Your task to perform on an android device: Clear the shopping cart on ebay.com. Add usb-c to the cart on ebay.com Image 0: 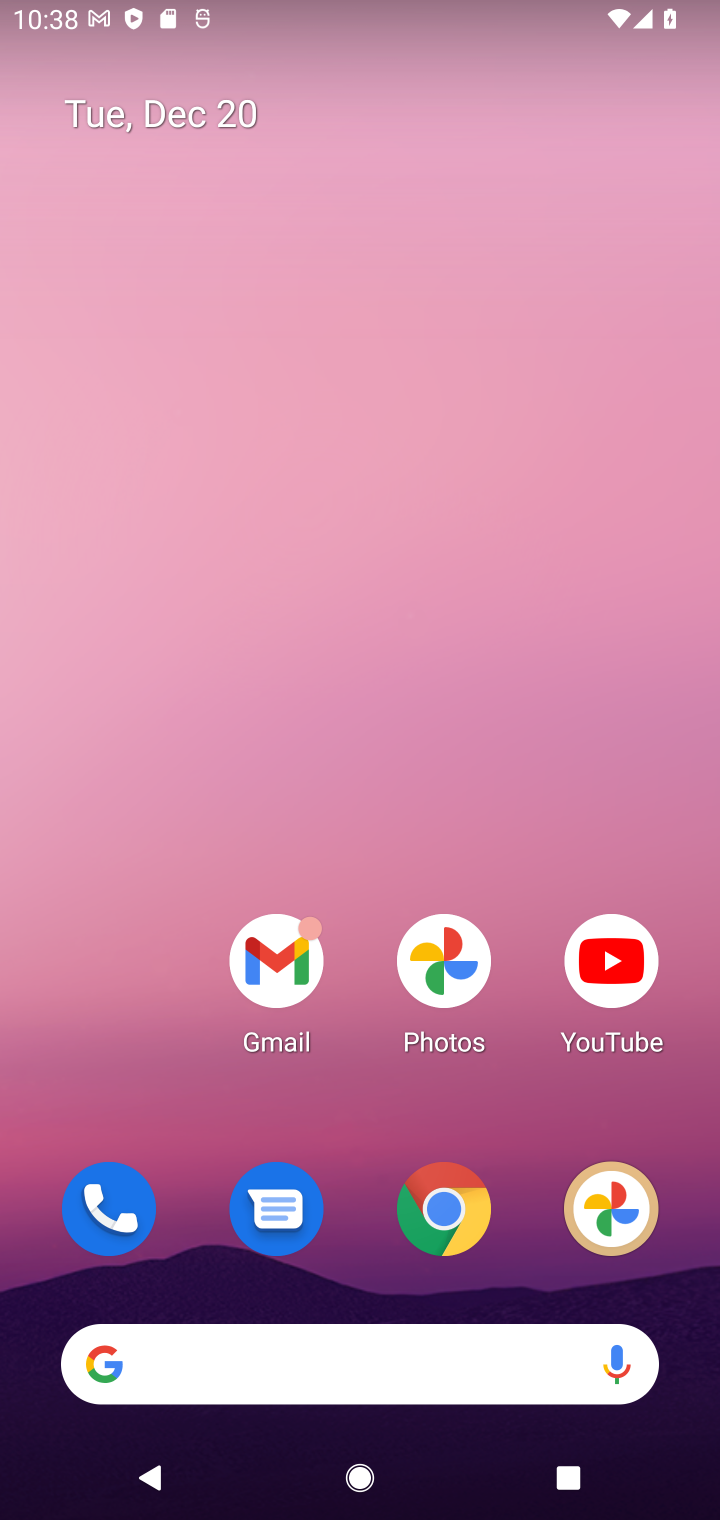
Step 0: click (443, 1208)
Your task to perform on an android device: Clear the shopping cart on ebay.com. Add usb-c to the cart on ebay.com Image 1: 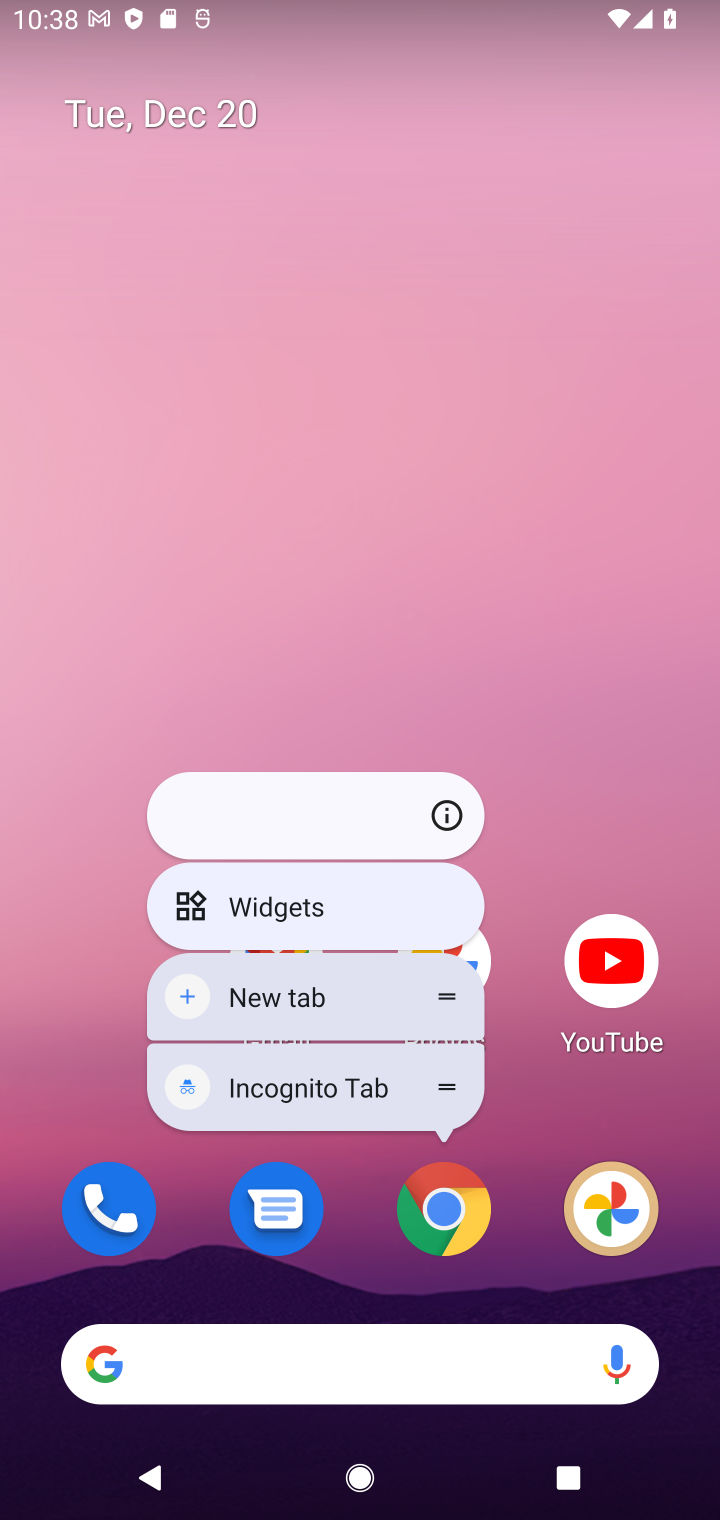
Step 1: click (445, 1208)
Your task to perform on an android device: Clear the shopping cart on ebay.com. Add usb-c to the cart on ebay.com Image 2: 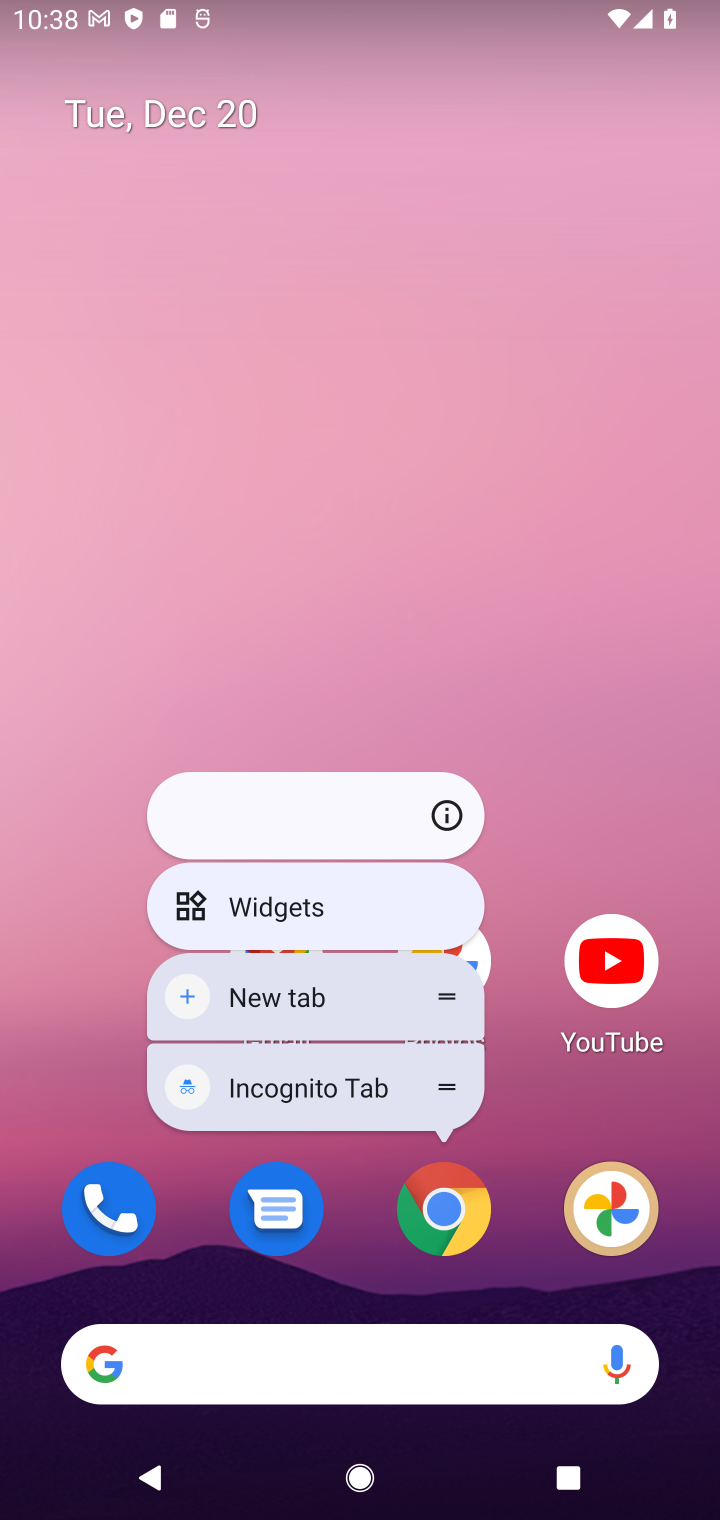
Step 2: click (445, 1208)
Your task to perform on an android device: Clear the shopping cart on ebay.com. Add usb-c to the cart on ebay.com Image 3: 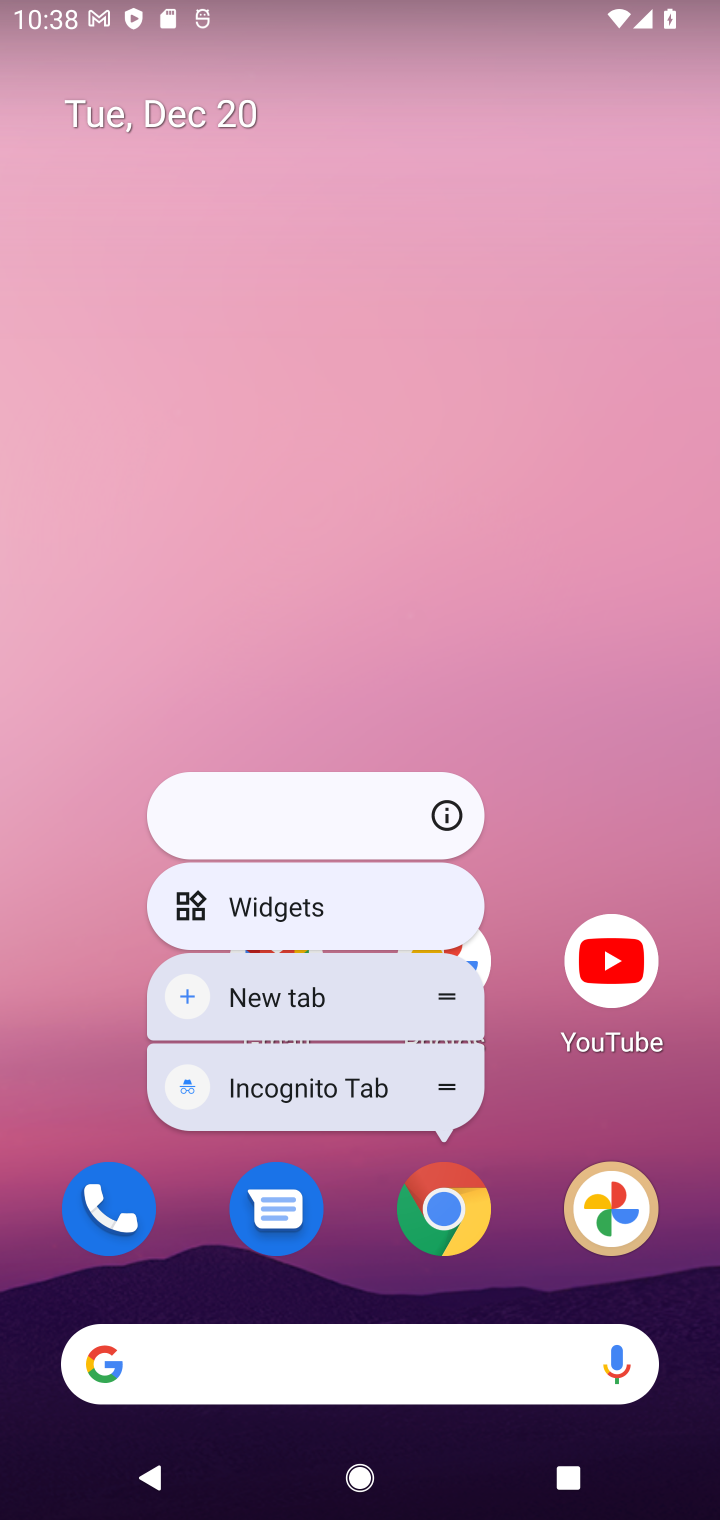
Step 3: click (441, 1218)
Your task to perform on an android device: Clear the shopping cart on ebay.com. Add usb-c to the cart on ebay.com Image 4: 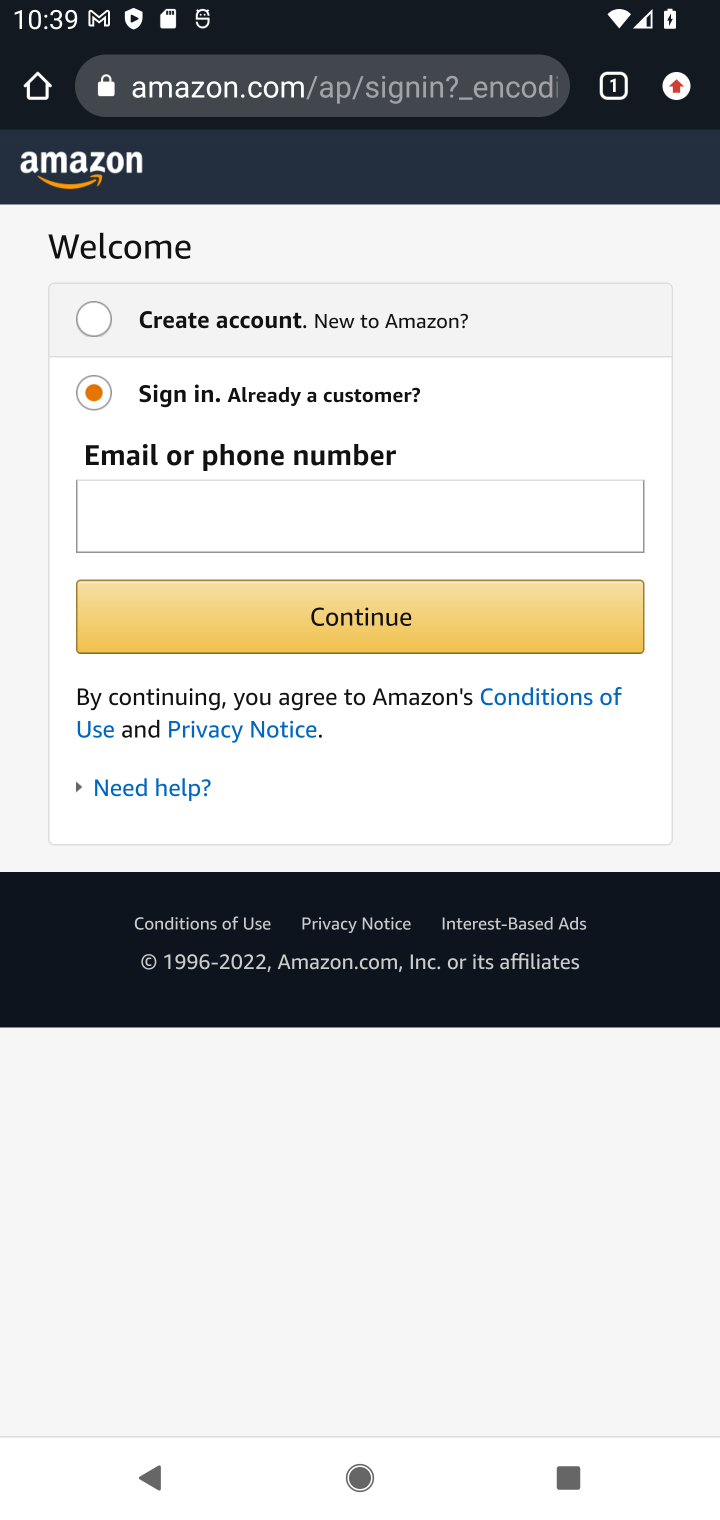
Step 4: click (222, 96)
Your task to perform on an android device: Clear the shopping cart on ebay.com. Add usb-c to the cart on ebay.com Image 5: 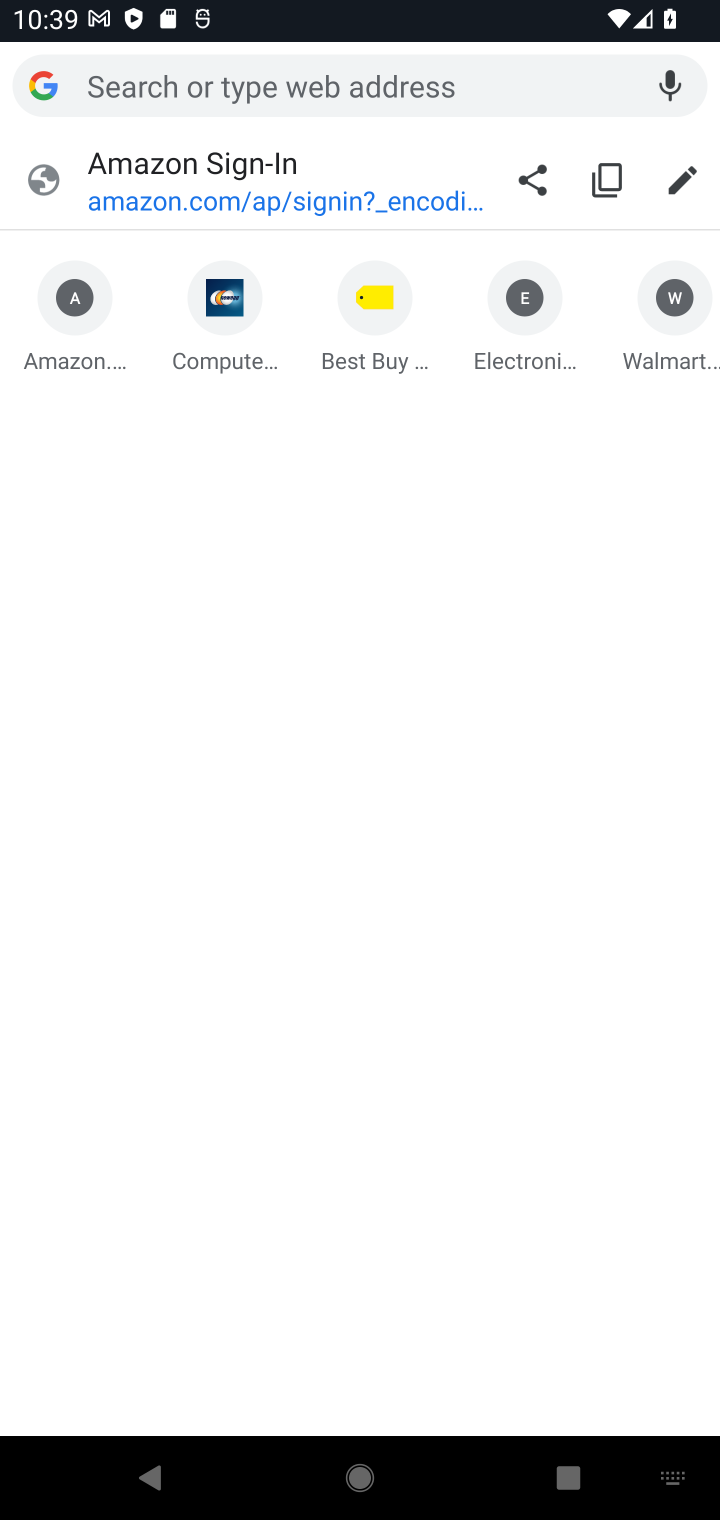
Step 5: type "ebay.com"
Your task to perform on an android device: Clear the shopping cart on ebay.com. Add usb-c to the cart on ebay.com Image 6: 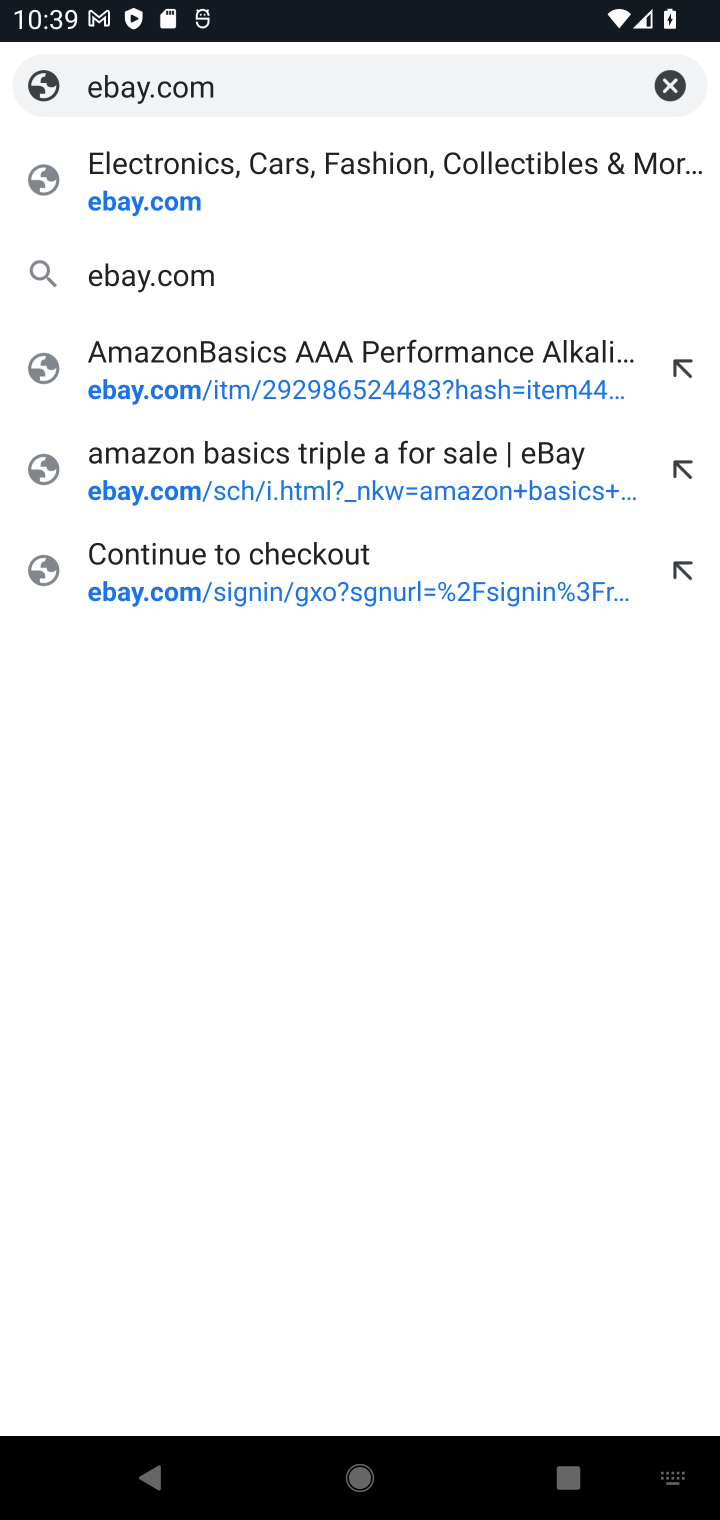
Step 6: click (140, 197)
Your task to perform on an android device: Clear the shopping cart on ebay.com. Add usb-c to the cart on ebay.com Image 7: 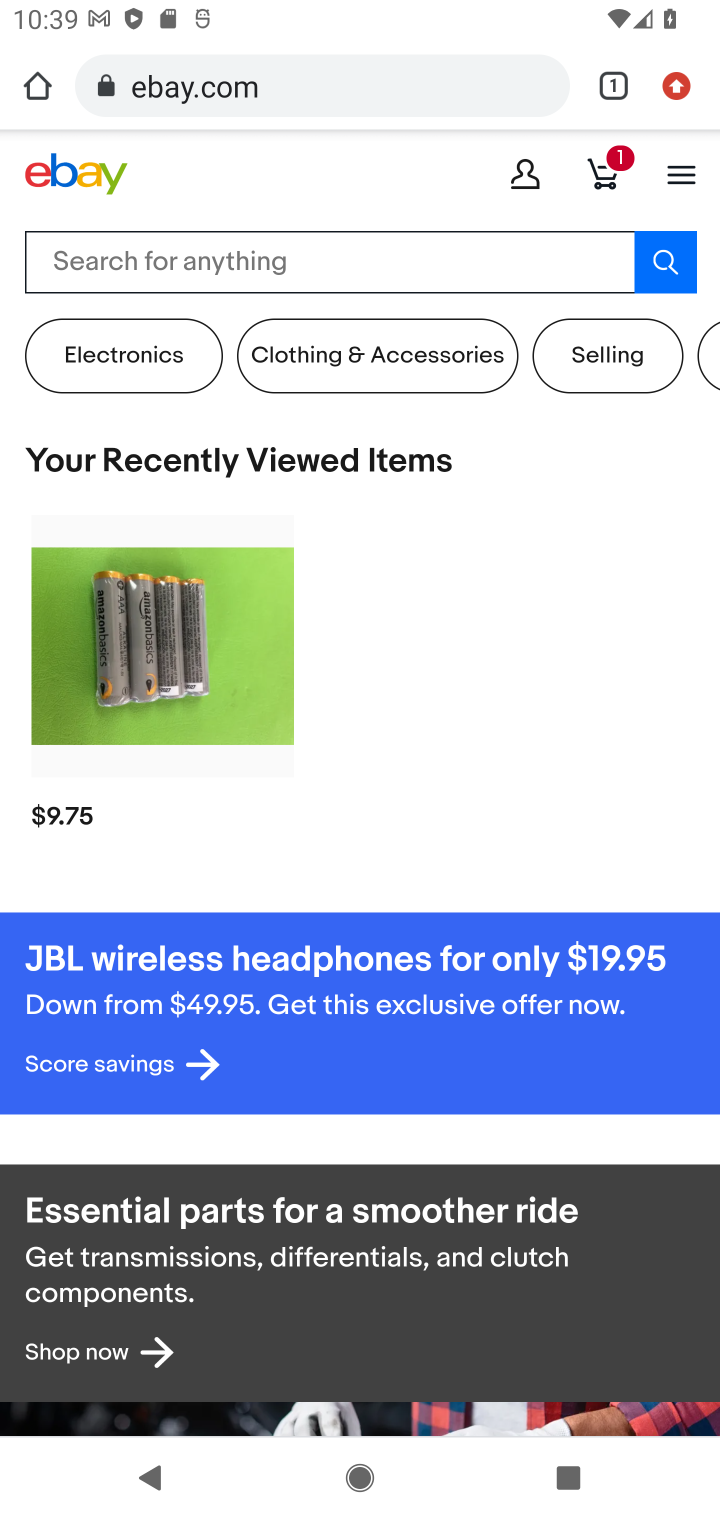
Step 7: click (606, 180)
Your task to perform on an android device: Clear the shopping cart on ebay.com. Add usb-c to the cart on ebay.com Image 8: 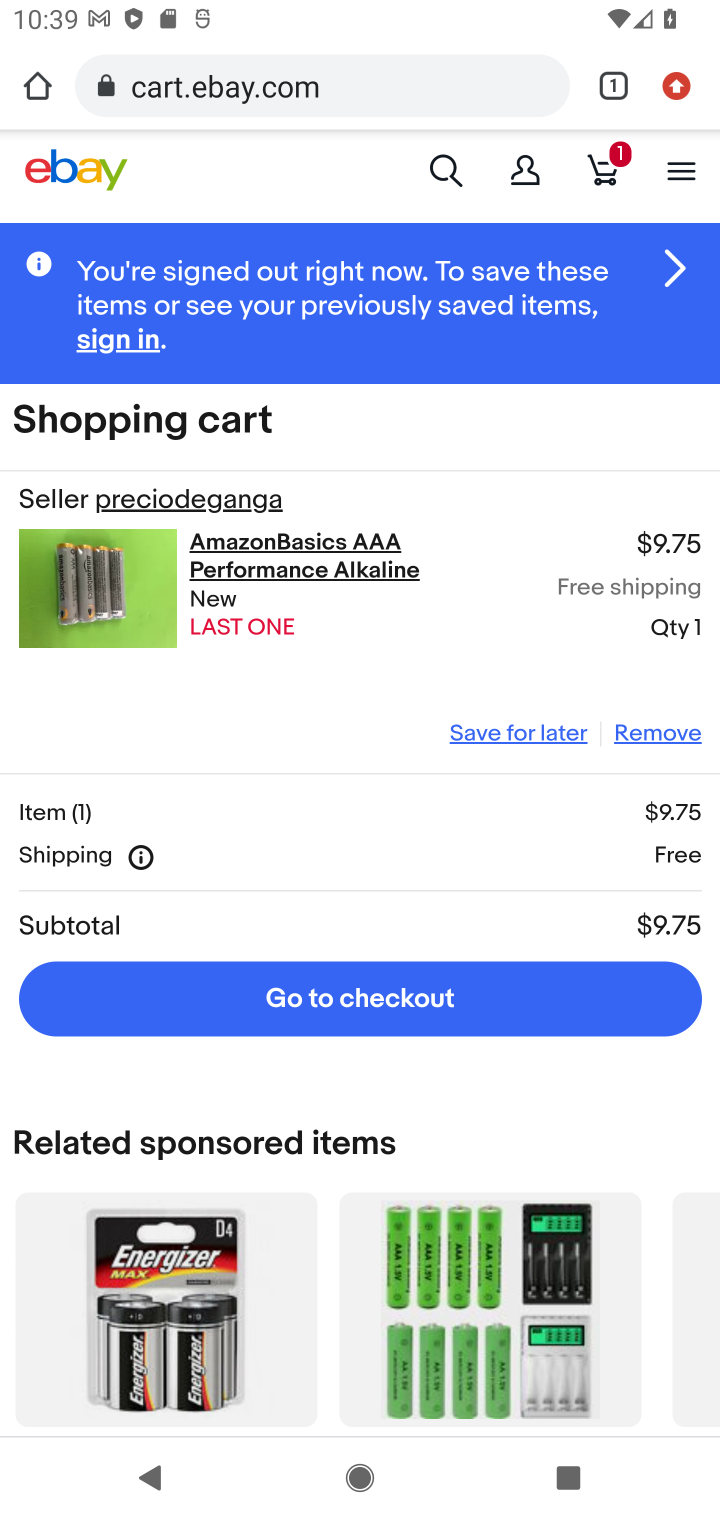
Step 8: click (667, 739)
Your task to perform on an android device: Clear the shopping cart on ebay.com. Add usb-c to the cart on ebay.com Image 9: 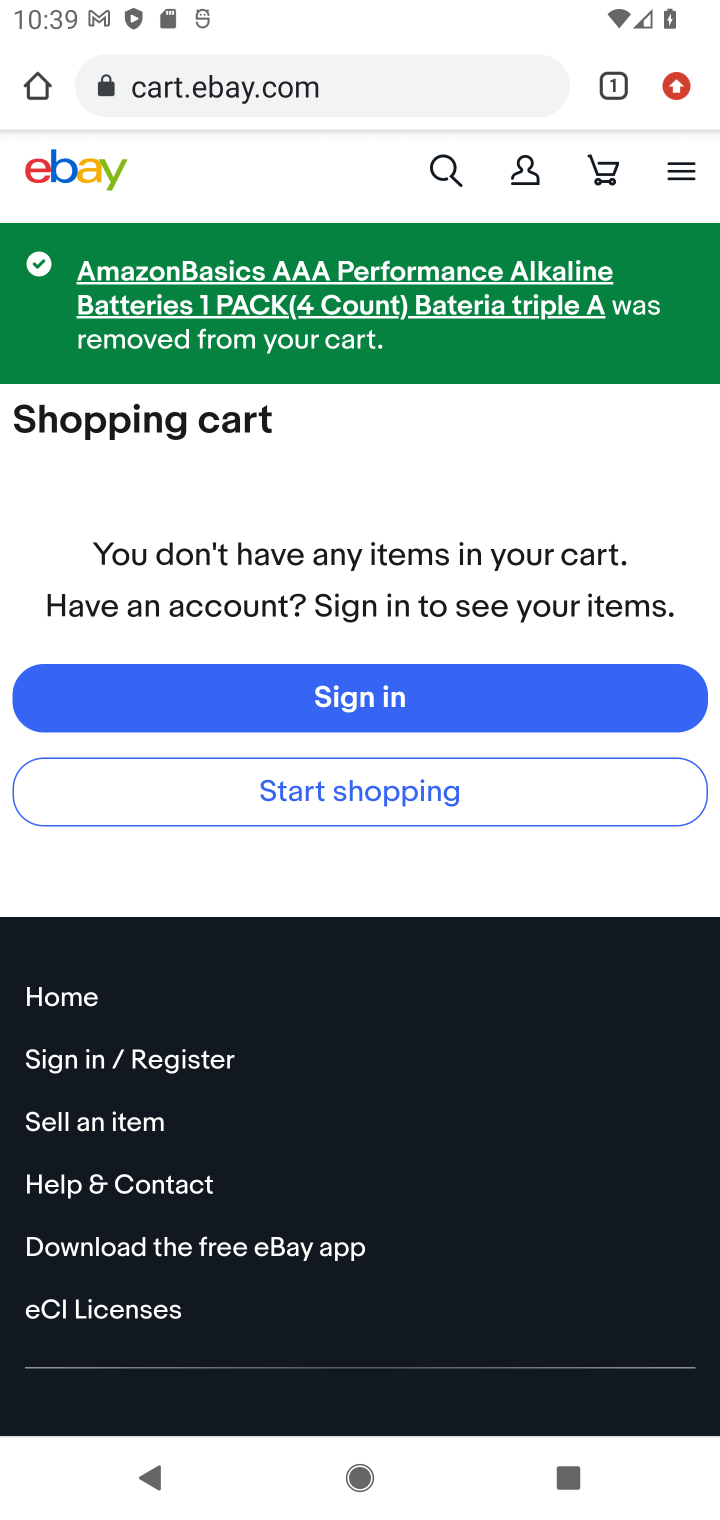
Step 9: click (441, 171)
Your task to perform on an android device: Clear the shopping cart on ebay.com. Add usb-c to the cart on ebay.com Image 10: 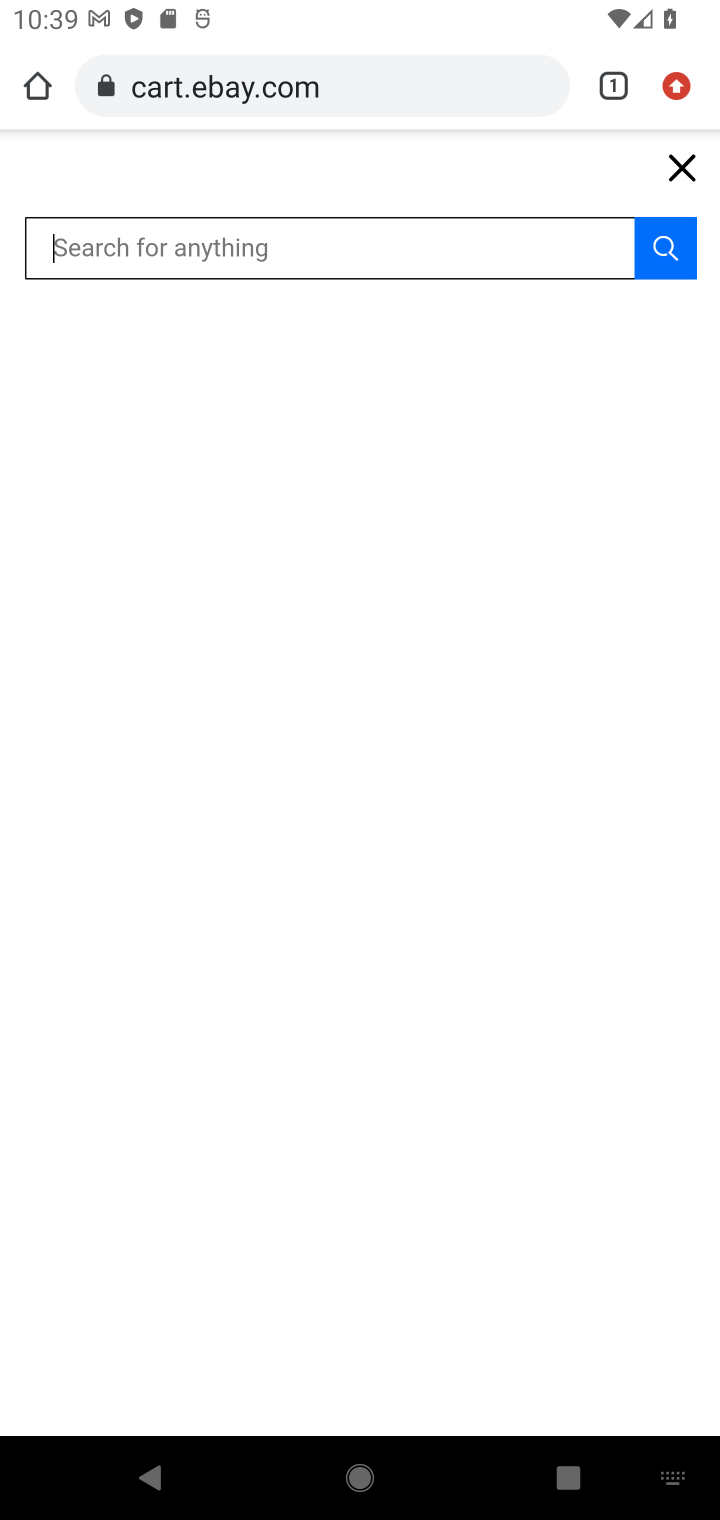
Step 10: type "usb-c"
Your task to perform on an android device: Clear the shopping cart on ebay.com. Add usb-c to the cart on ebay.com Image 11: 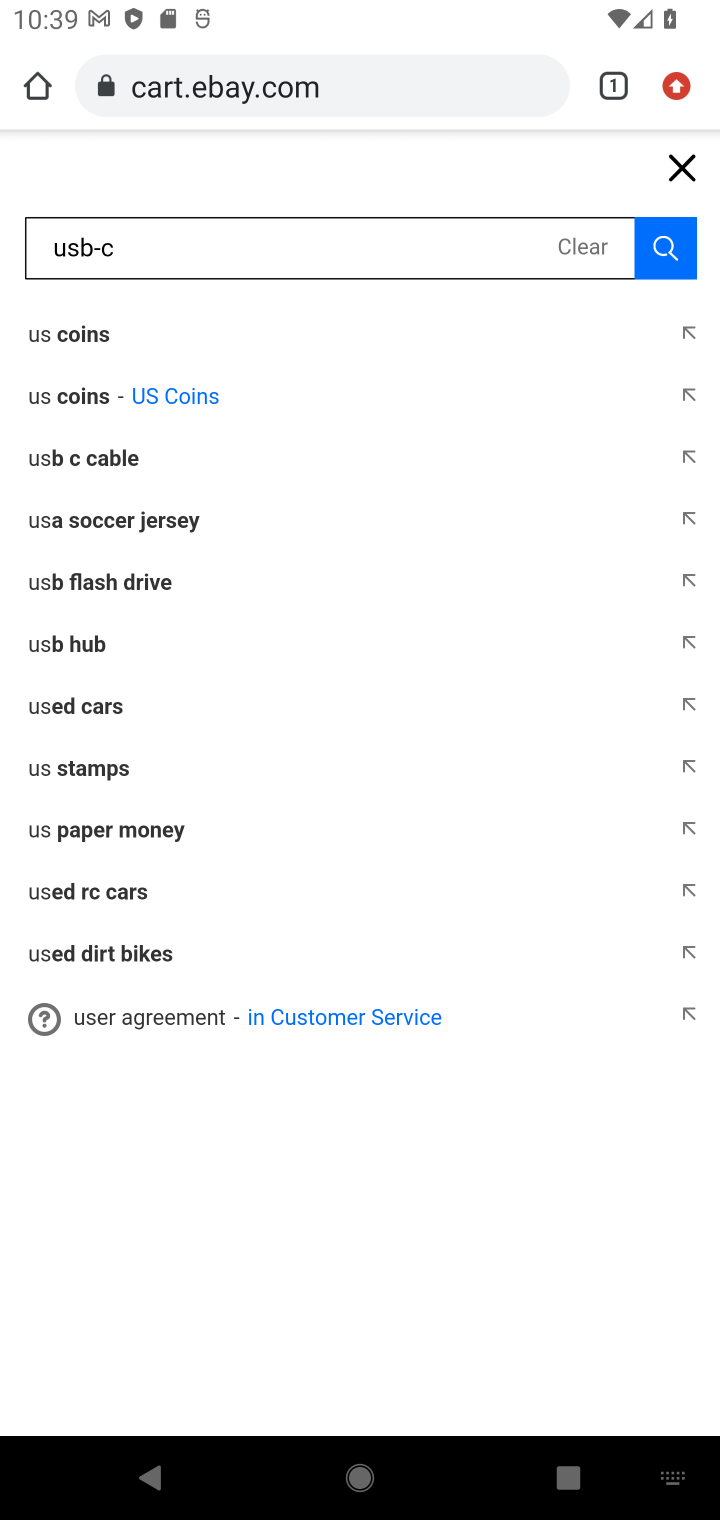
Step 11: click (667, 242)
Your task to perform on an android device: Clear the shopping cart on ebay.com. Add usb-c to the cart on ebay.com Image 12: 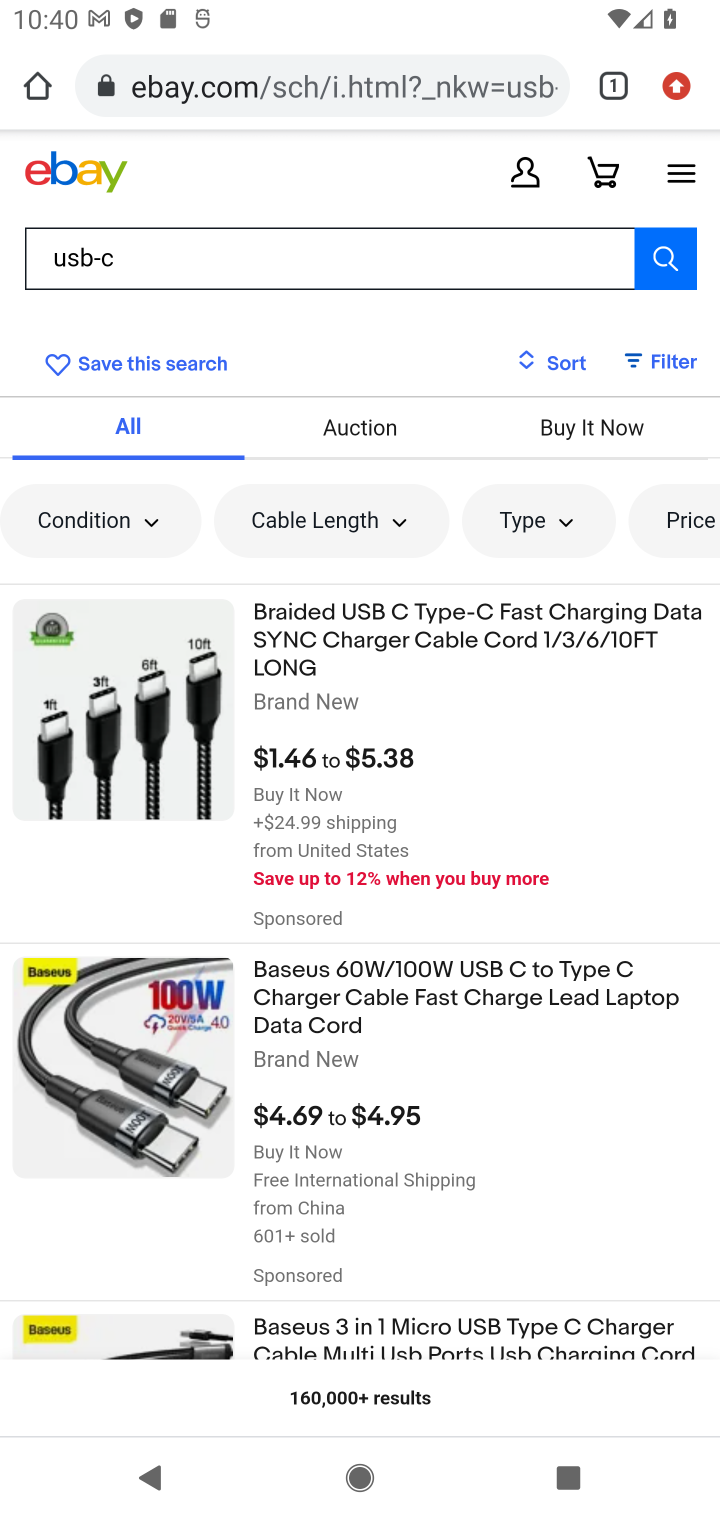
Step 12: click (292, 632)
Your task to perform on an android device: Clear the shopping cart on ebay.com. Add usb-c to the cart on ebay.com Image 13: 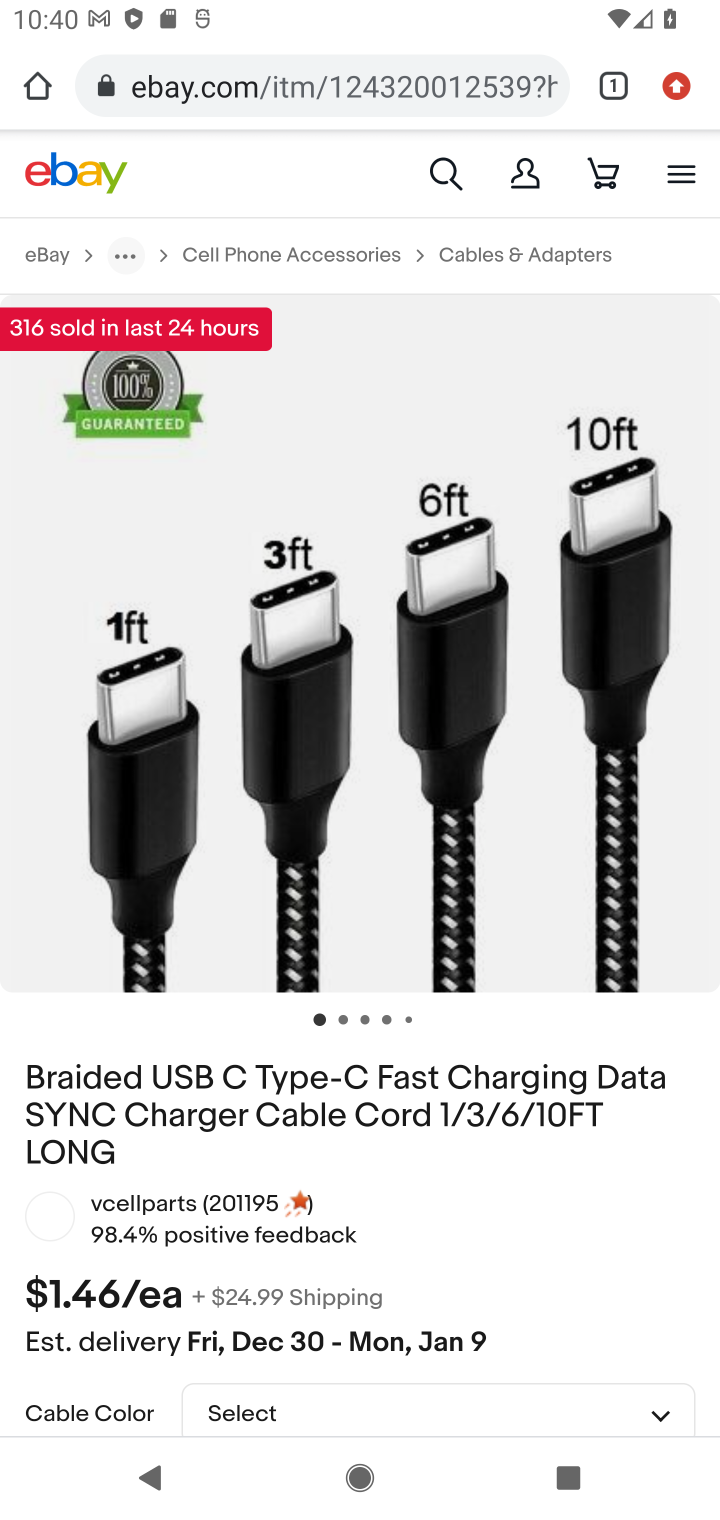
Step 13: drag from (350, 1160) to (376, 681)
Your task to perform on an android device: Clear the shopping cart on ebay.com. Add usb-c to the cart on ebay.com Image 14: 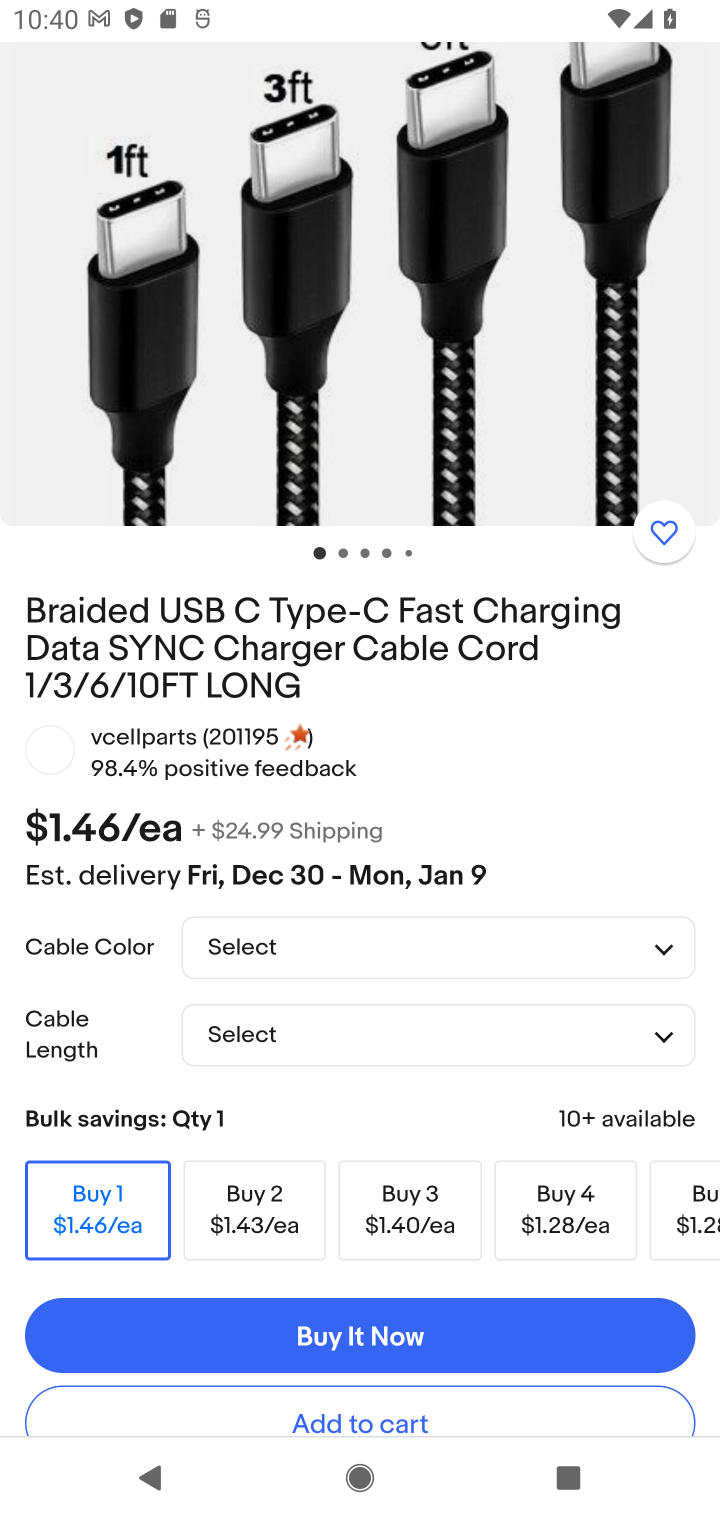
Step 14: drag from (340, 1256) to (351, 823)
Your task to perform on an android device: Clear the shopping cart on ebay.com. Add usb-c to the cart on ebay.com Image 15: 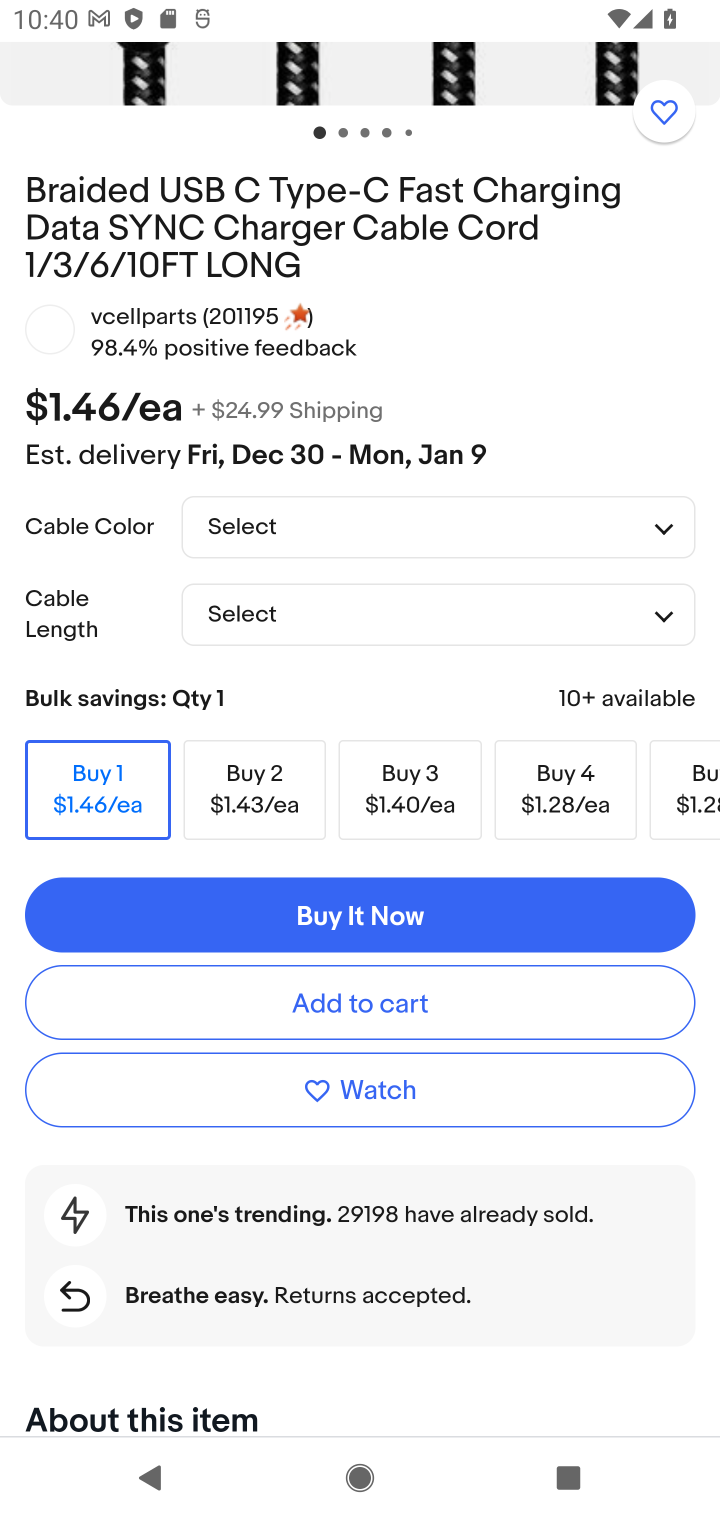
Step 15: click (339, 1006)
Your task to perform on an android device: Clear the shopping cart on ebay.com. Add usb-c to the cart on ebay.com Image 16: 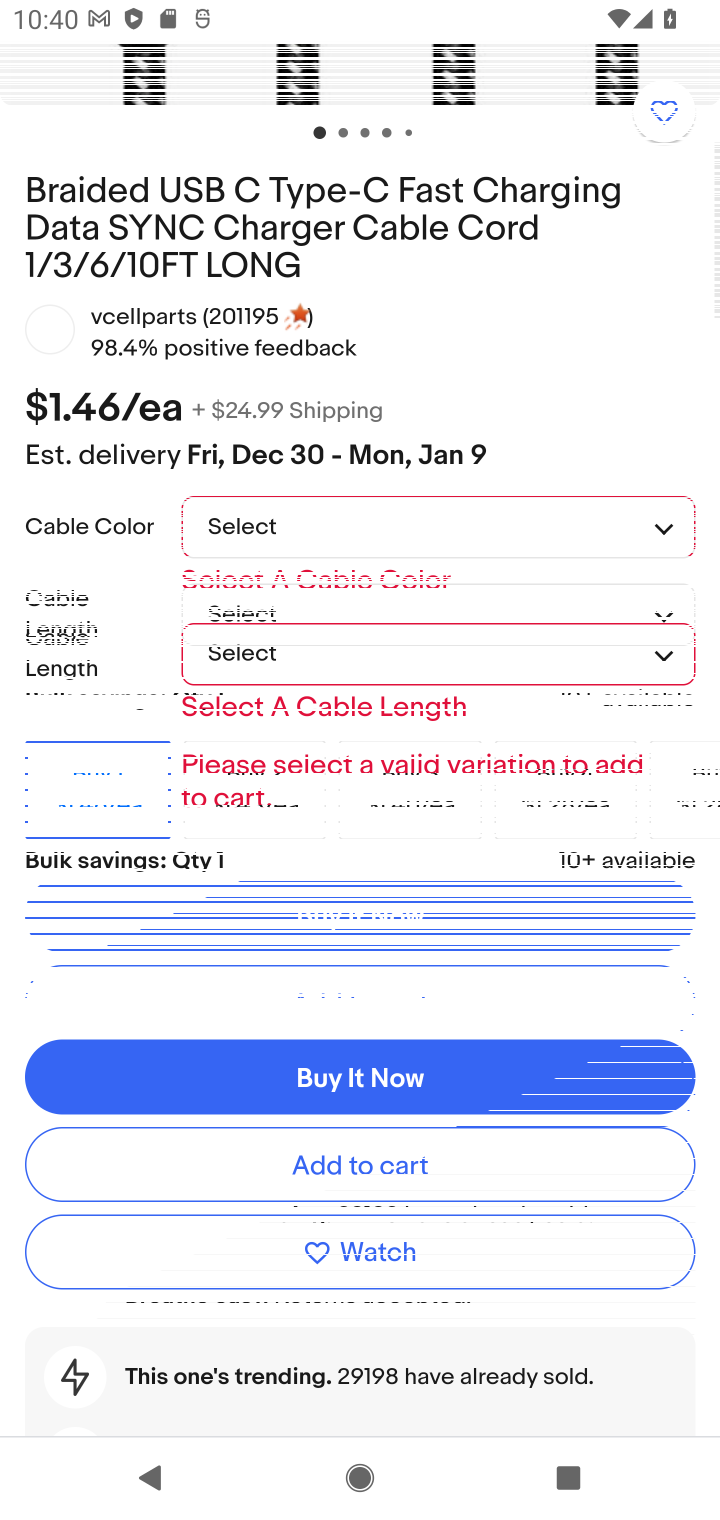
Step 16: click (669, 525)
Your task to perform on an android device: Clear the shopping cart on ebay.com. Add usb-c to the cart on ebay.com Image 17: 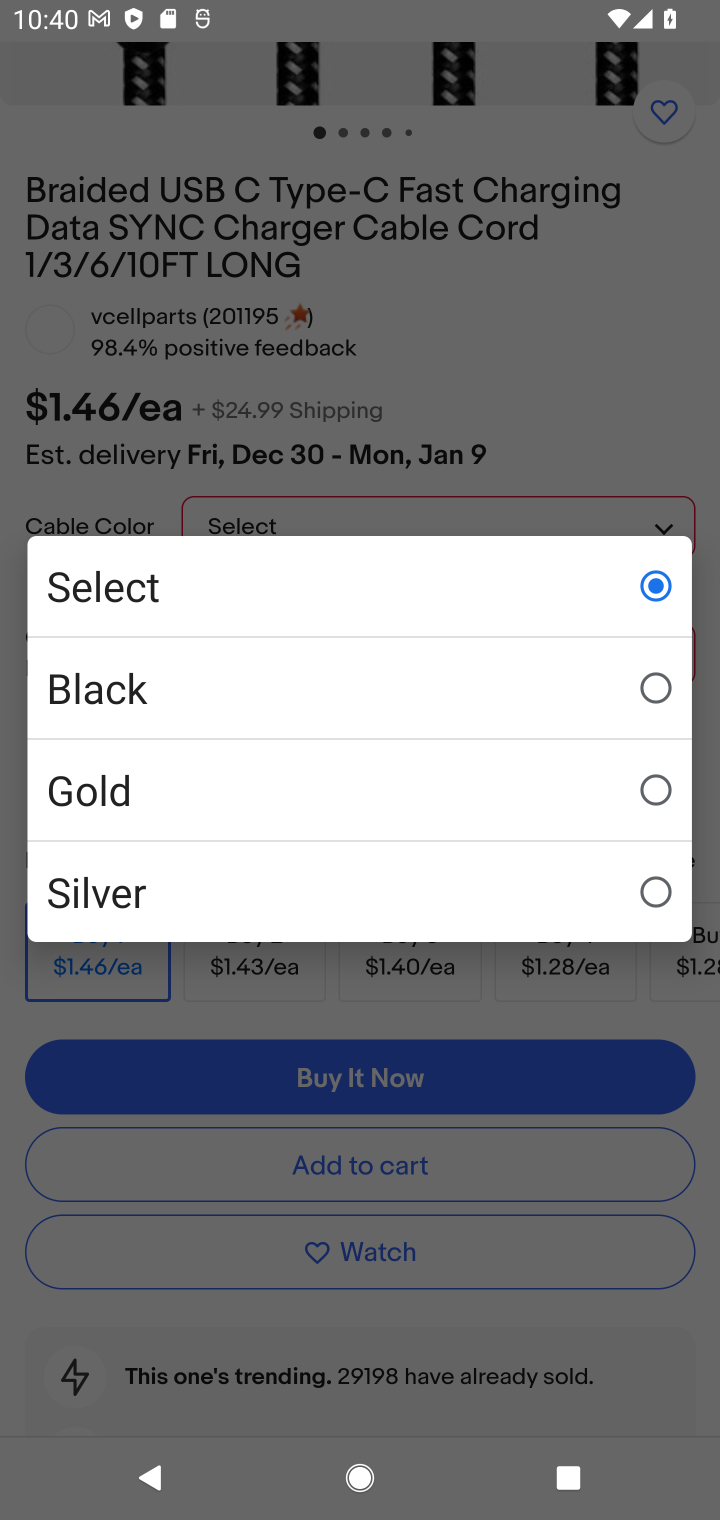
Step 17: click (104, 693)
Your task to perform on an android device: Clear the shopping cart on ebay.com. Add usb-c to the cart on ebay.com Image 18: 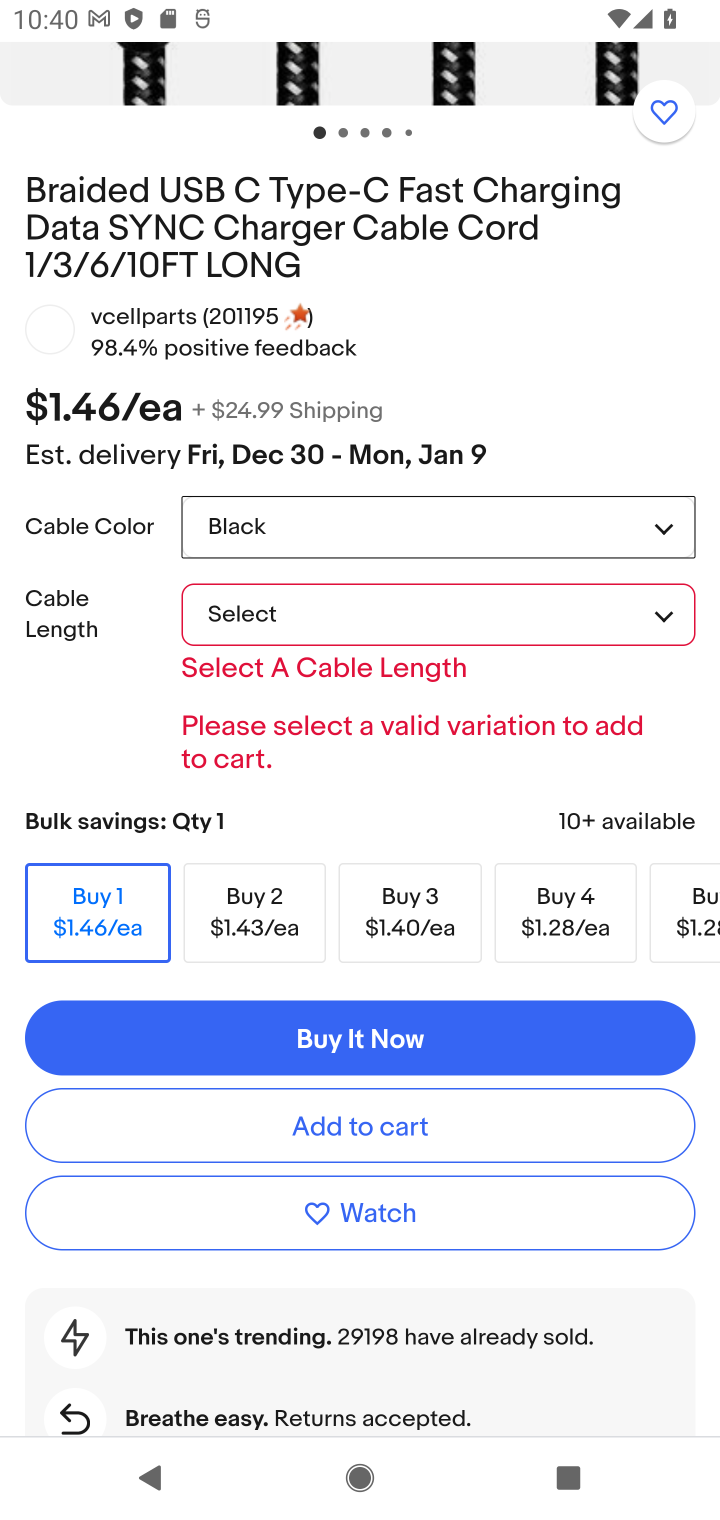
Step 18: click (665, 616)
Your task to perform on an android device: Clear the shopping cart on ebay.com. Add usb-c to the cart on ebay.com Image 19: 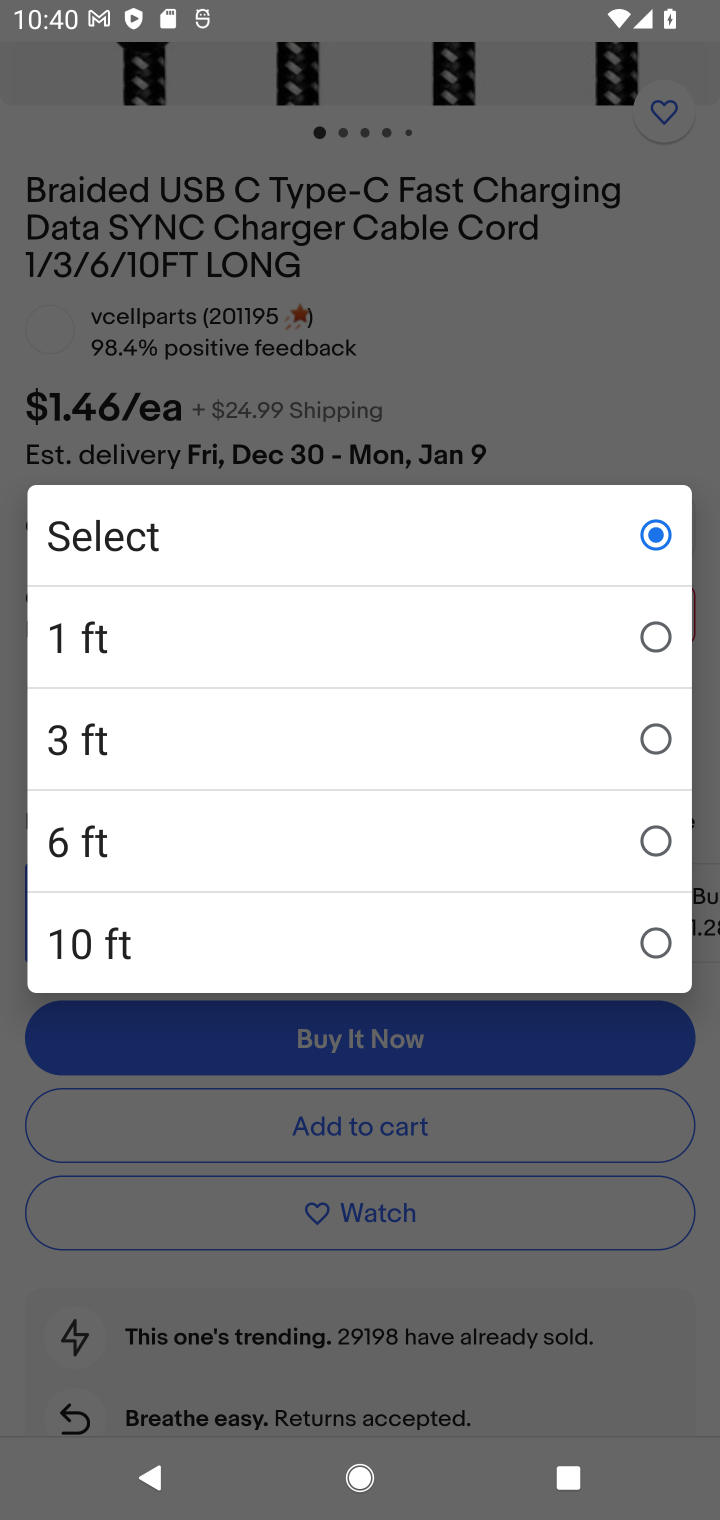
Step 19: click (130, 740)
Your task to perform on an android device: Clear the shopping cart on ebay.com. Add usb-c to the cart on ebay.com Image 20: 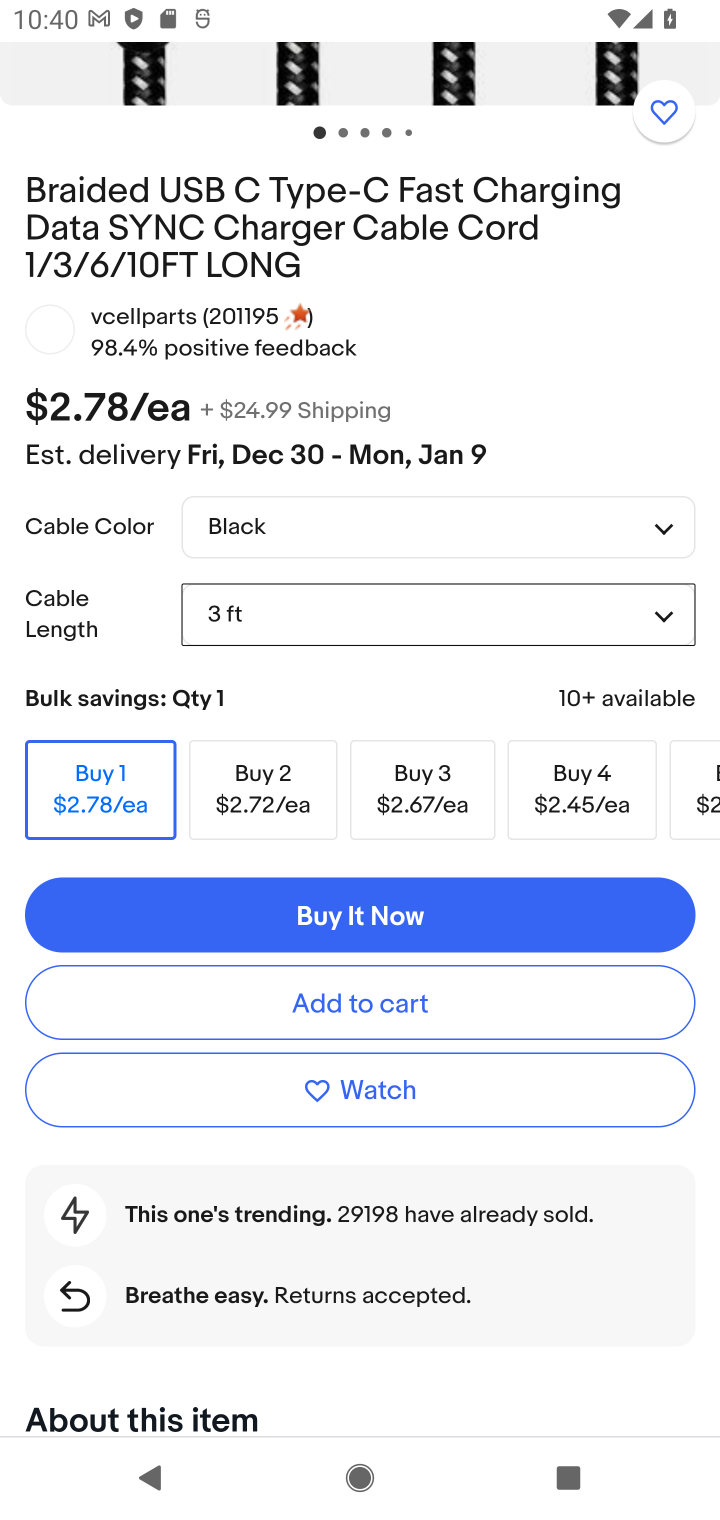
Step 20: click (325, 1005)
Your task to perform on an android device: Clear the shopping cart on ebay.com. Add usb-c to the cart on ebay.com Image 21: 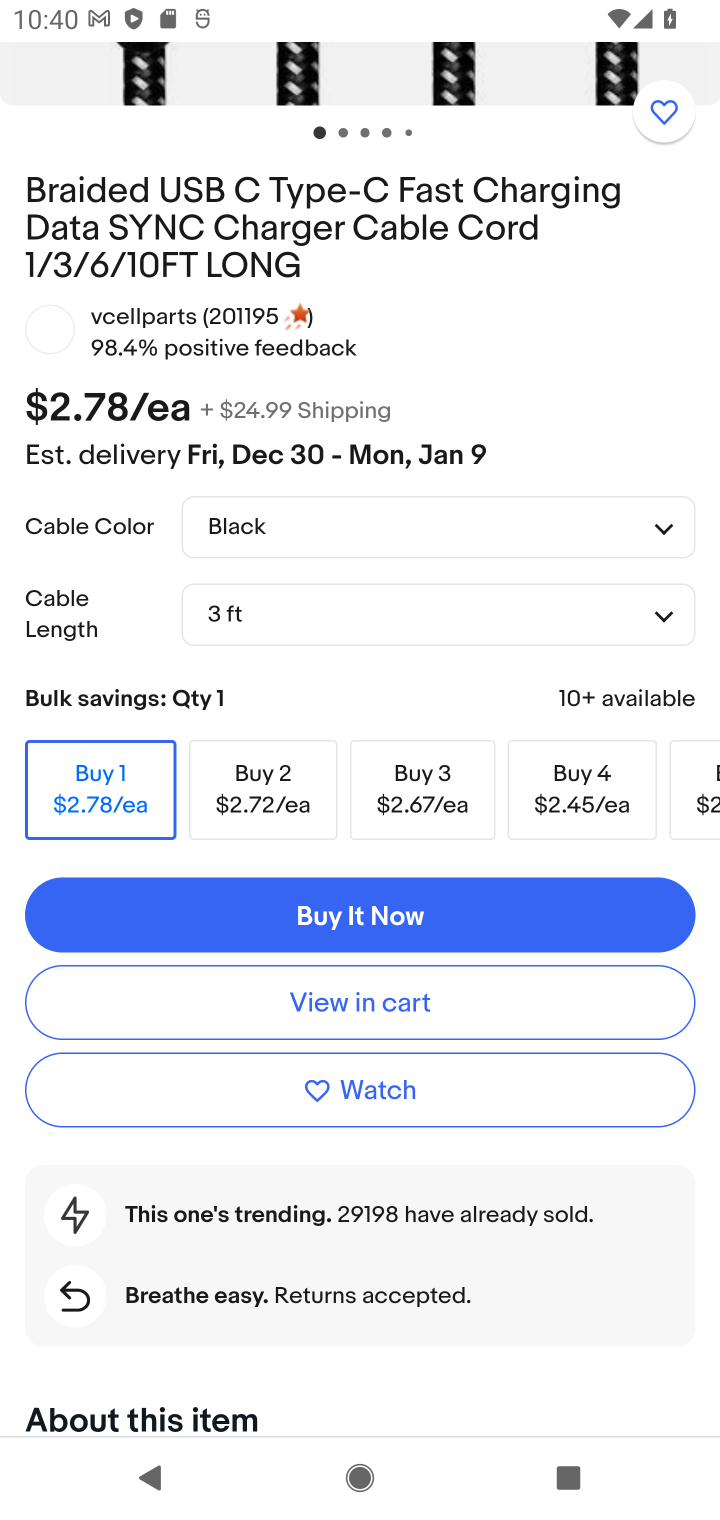
Step 21: task complete